Your task to perform on an android device: turn off improve location accuracy Image 0: 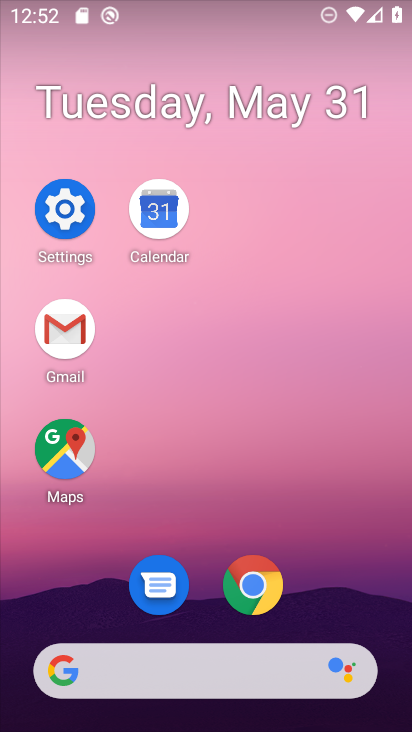
Step 0: click (56, 195)
Your task to perform on an android device: turn off improve location accuracy Image 1: 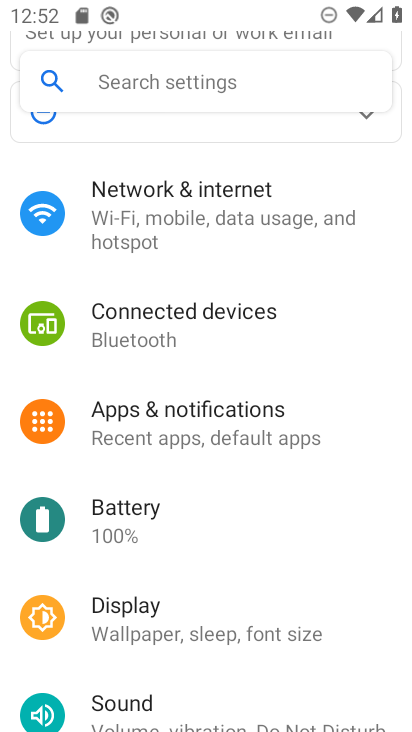
Step 1: drag from (253, 674) to (253, 298)
Your task to perform on an android device: turn off improve location accuracy Image 2: 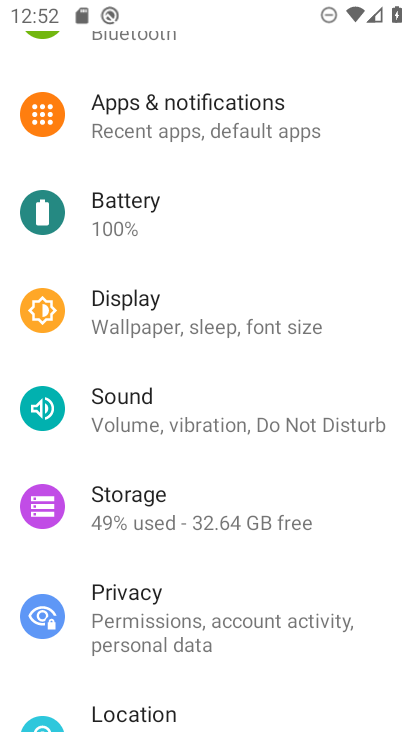
Step 2: drag from (267, 595) to (263, 237)
Your task to perform on an android device: turn off improve location accuracy Image 3: 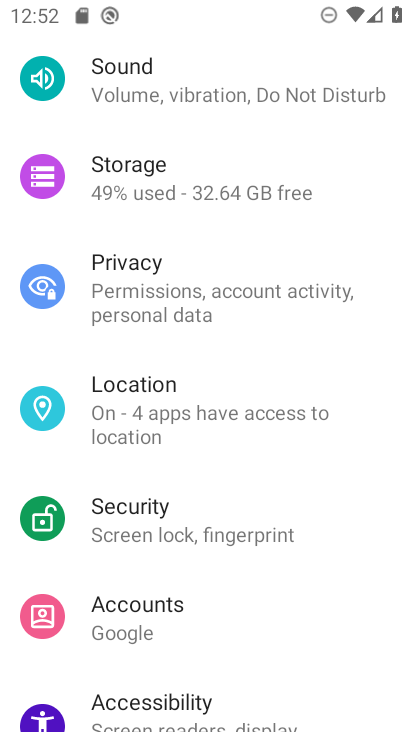
Step 3: click (193, 415)
Your task to perform on an android device: turn off improve location accuracy Image 4: 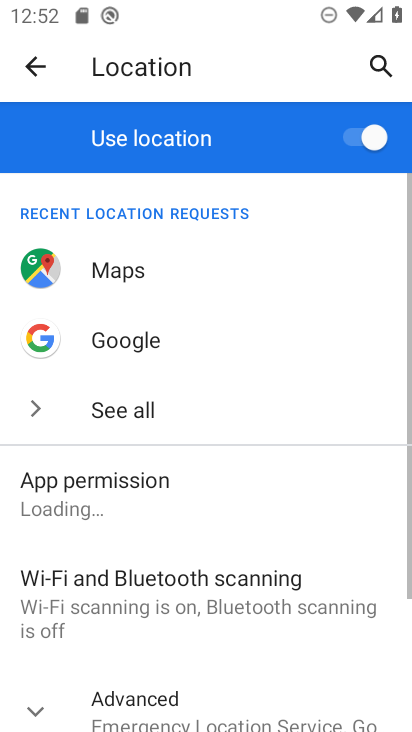
Step 4: drag from (250, 647) to (248, 264)
Your task to perform on an android device: turn off improve location accuracy Image 5: 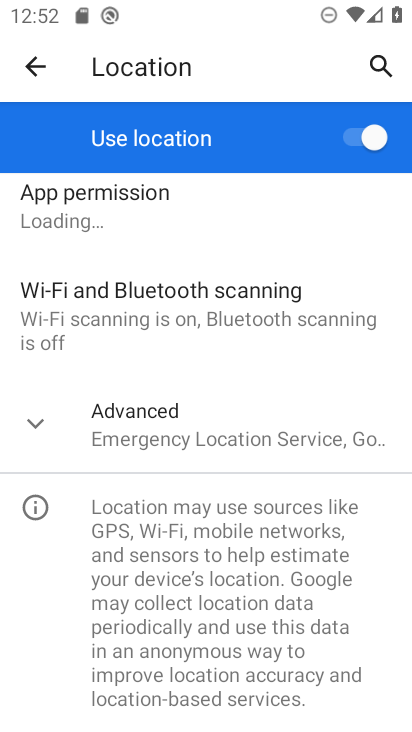
Step 5: click (209, 419)
Your task to perform on an android device: turn off improve location accuracy Image 6: 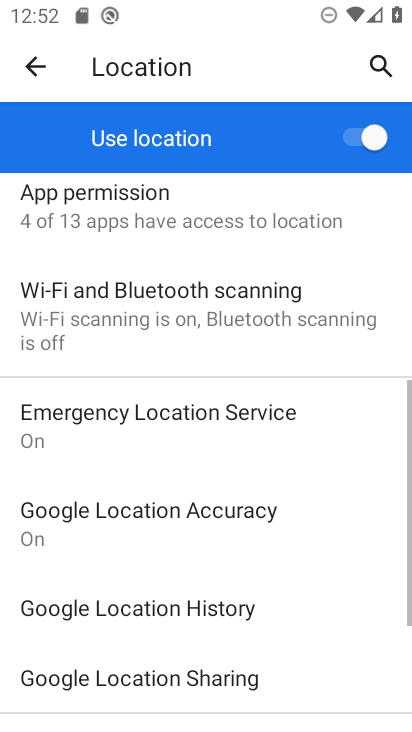
Step 6: drag from (227, 582) to (221, 268)
Your task to perform on an android device: turn off improve location accuracy Image 7: 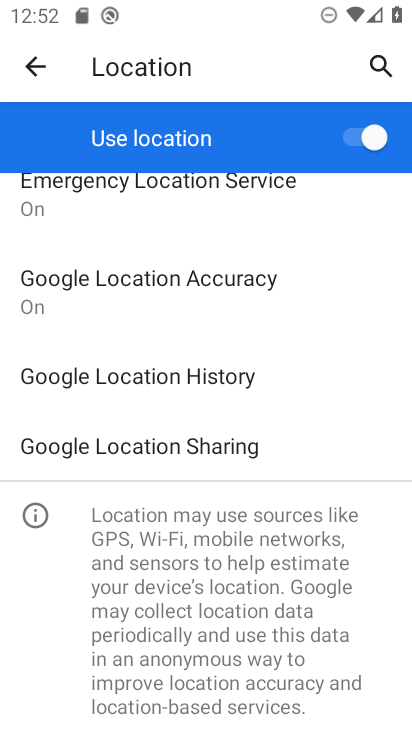
Step 7: click (230, 291)
Your task to perform on an android device: turn off improve location accuracy Image 8: 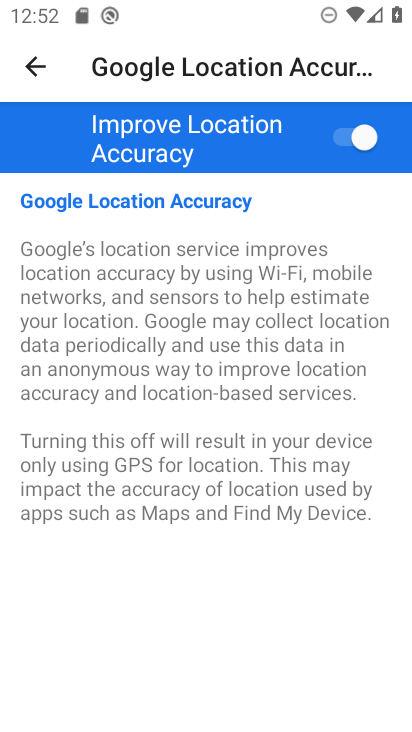
Step 8: click (355, 130)
Your task to perform on an android device: turn off improve location accuracy Image 9: 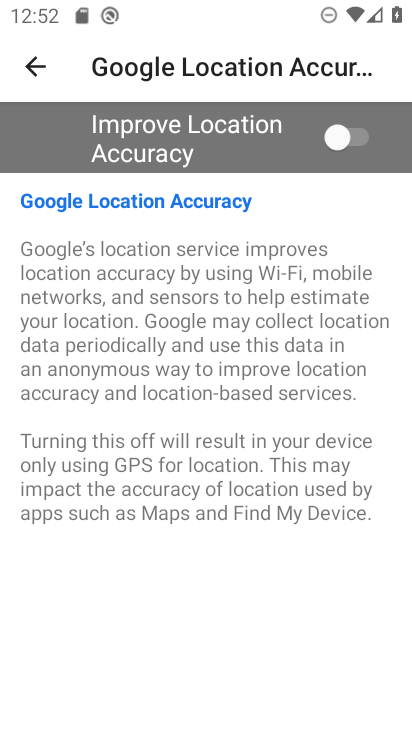
Step 9: task complete